Your task to perform on an android device: turn on improve location accuracy Image 0: 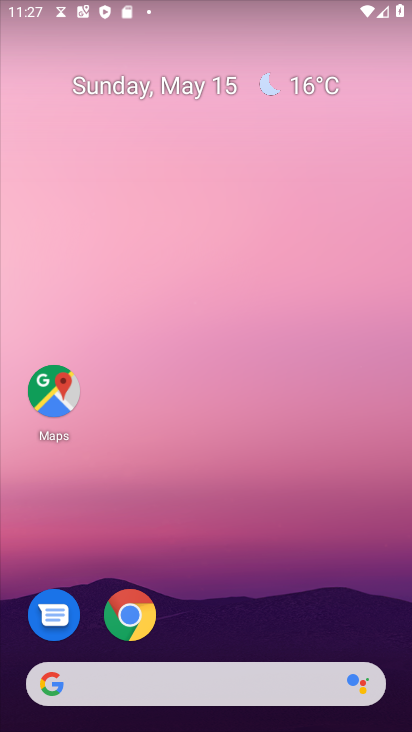
Step 0: drag from (309, 668) to (321, 175)
Your task to perform on an android device: turn on improve location accuracy Image 1: 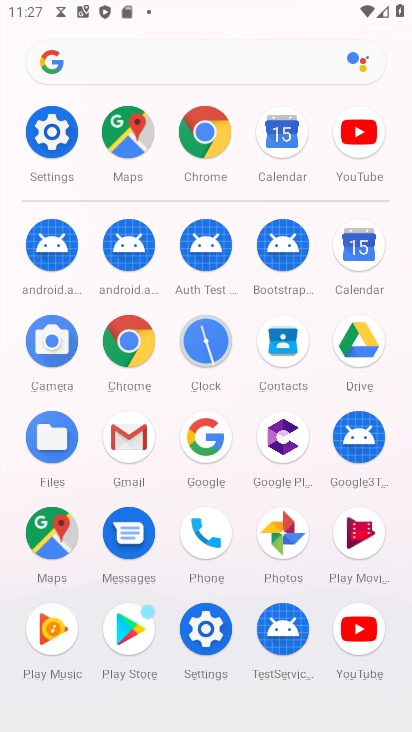
Step 1: click (31, 114)
Your task to perform on an android device: turn on improve location accuracy Image 2: 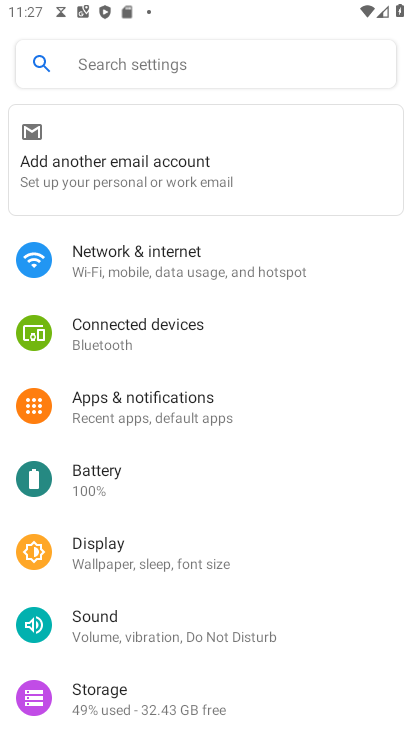
Step 2: drag from (226, 682) to (261, 306)
Your task to perform on an android device: turn on improve location accuracy Image 3: 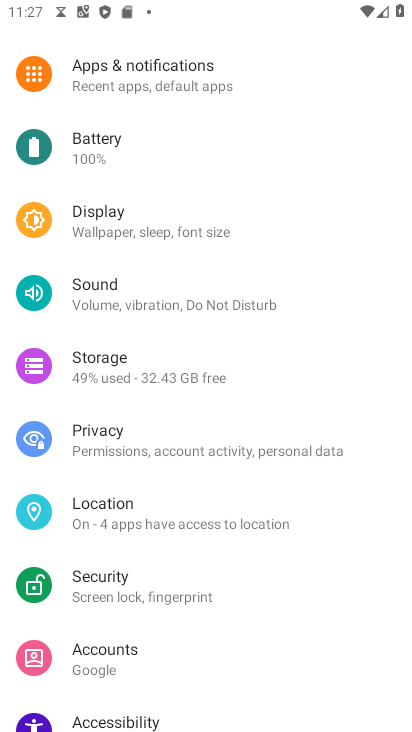
Step 3: click (198, 506)
Your task to perform on an android device: turn on improve location accuracy Image 4: 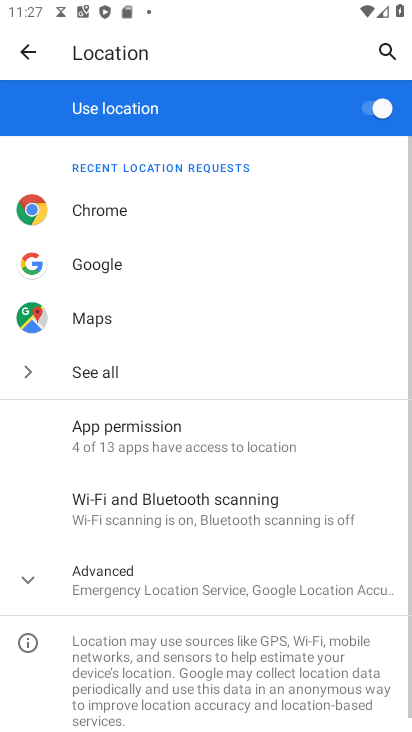
Step 4: click (183, 595)
Your task to perform on an android device: turn on improve location accuracy Image 5: 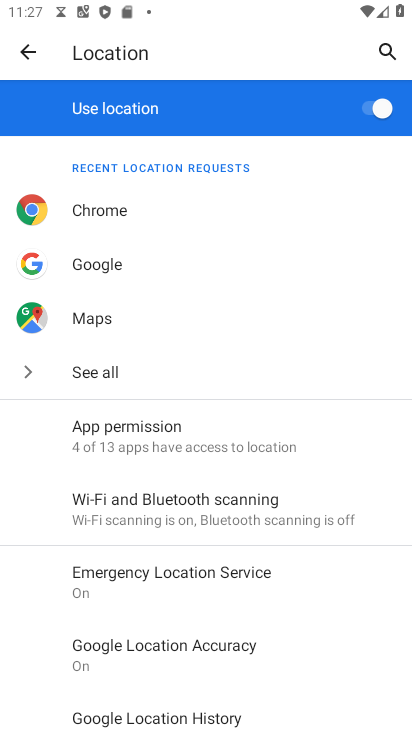
Step 5: click (165, 658)
Your task to perform on an android device: turn on improve location accuracy Image 6: 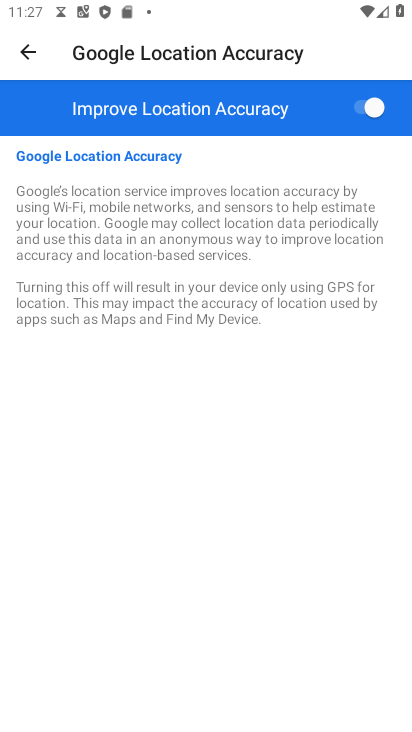
Step 6: task complete